Your task to perform on an android device: Open notification settings Image 0: 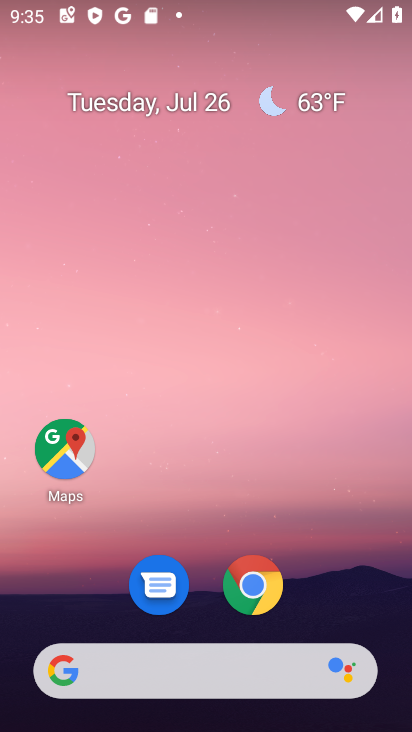
Step 0: drag from (327, 525) to (296, 59)
Your task to perform on an android device: Open notification settings Image 1: 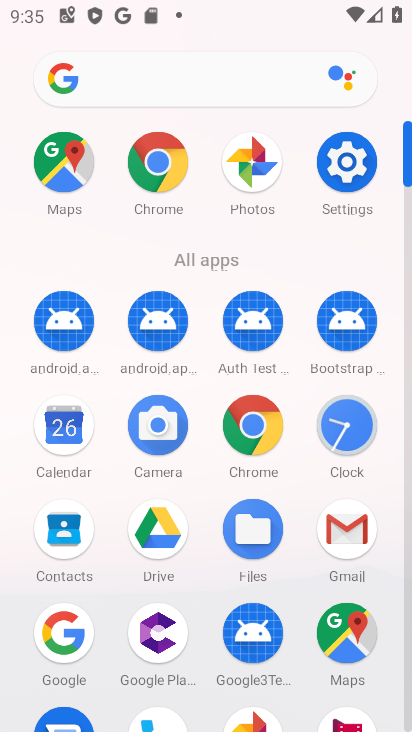
Step 1: click (343, 165)
Your task to perform on an android device: Open notification settings Image 2: 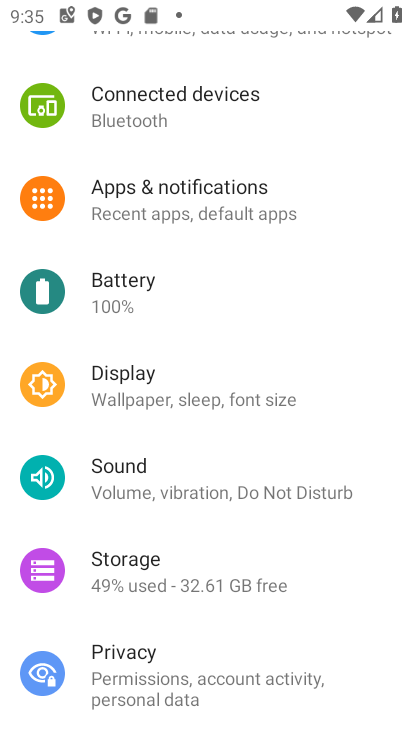
Step 2: click (224, 206)
Your task to perform on an android device: Open notification settings Image 3: 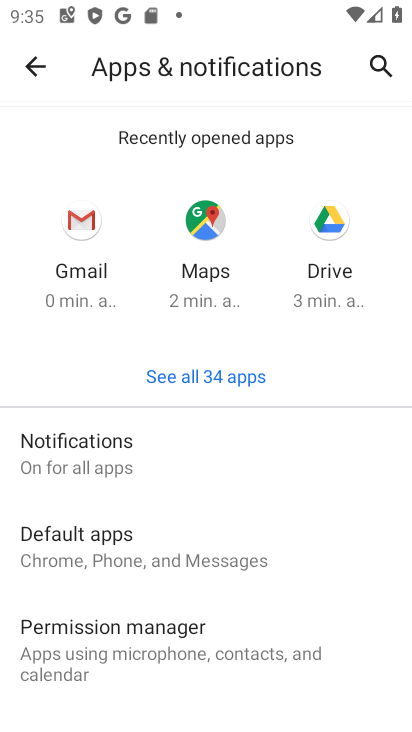
Step 3: click (105, 453)
Your task to perform on an android device: Open notification settings Image 4: 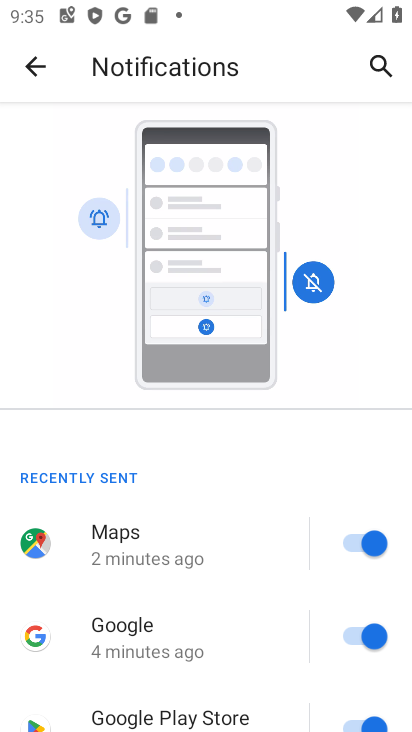
Step 4: task complete